Your task to perform on an android device: check the backup settings in the google photos Image 0: 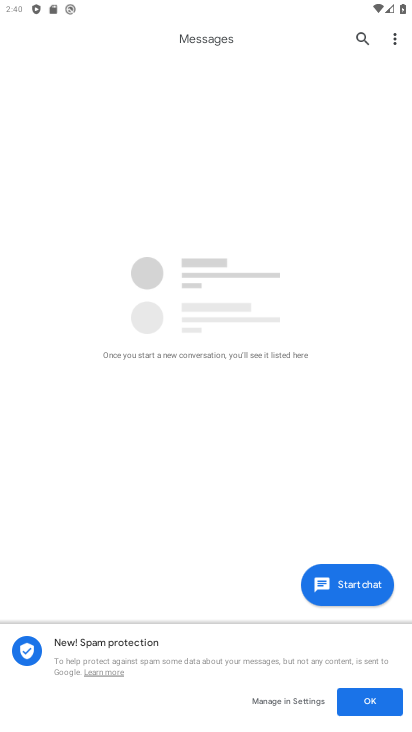
Step 0: press back button
Your task to perform on an android device: check the backup settings in the google photos Image 1: 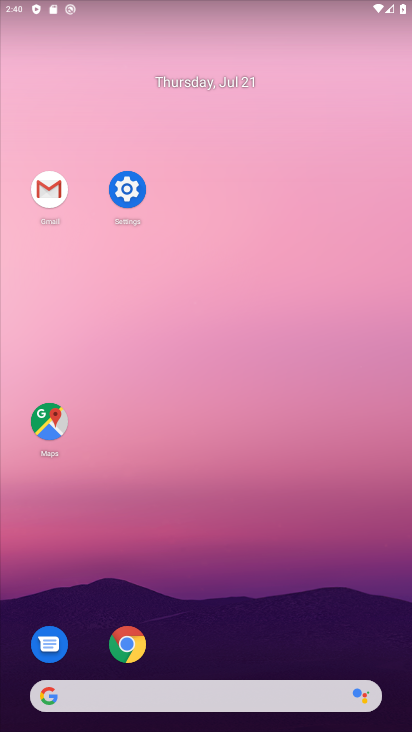
Step 1: drag from (259, 631) to (251, 149)
Your task to perform on an android device: check the backup settings in the google photos Image 2: 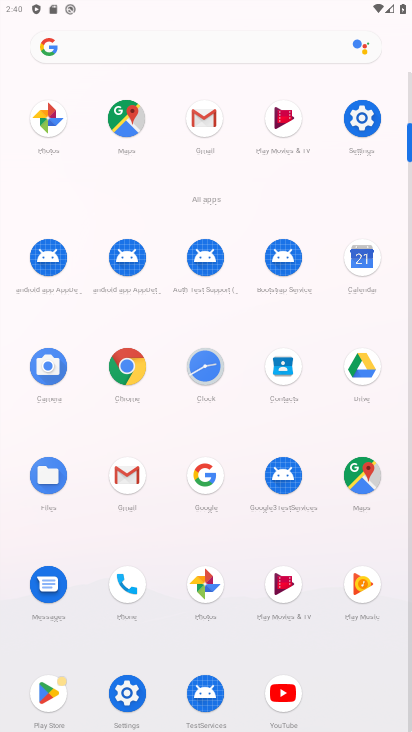
Step 2: drag from (43, 121) to (140, 142)
Your task to perform on an android device: check the backup settings in the google photos Image 3: 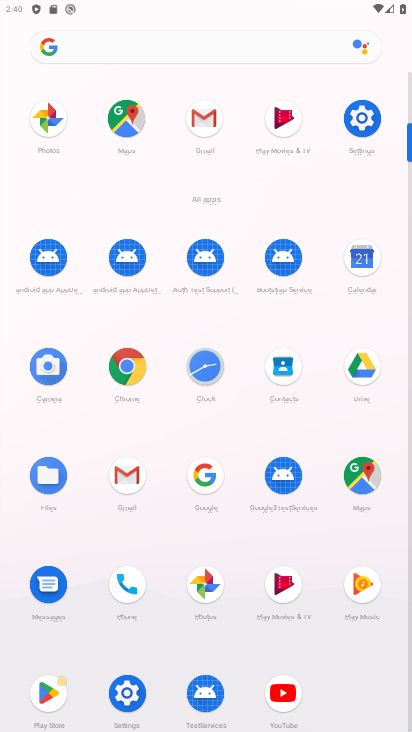
Step 3: drag from (45, 117) to (184, 209)
Your task to perform on an android device: check the backup settings in the google photos Image 4: 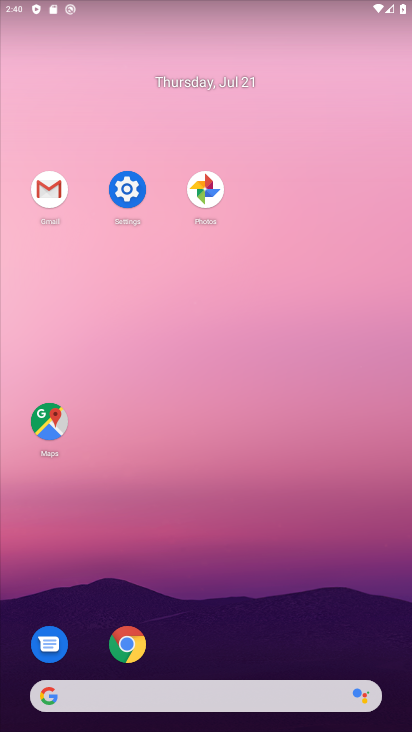
Step 4: click (202, 187)
Your task to perform on an android device: check the backup settings in the google photos Image 5: 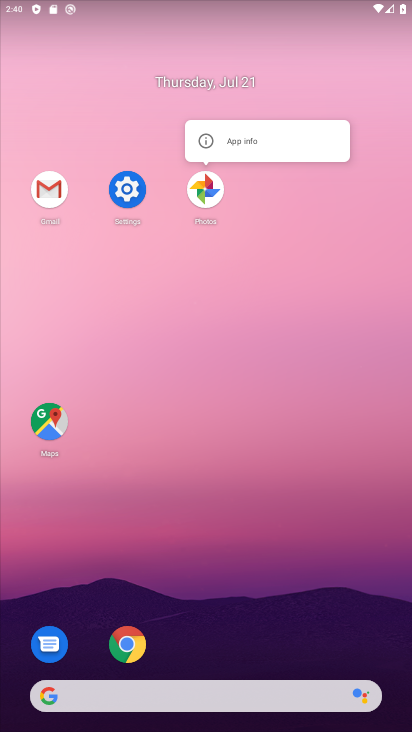
Step 5: click (203, 238)
Your task to perform on an android device: check the backup settings in the google photos Image 6: 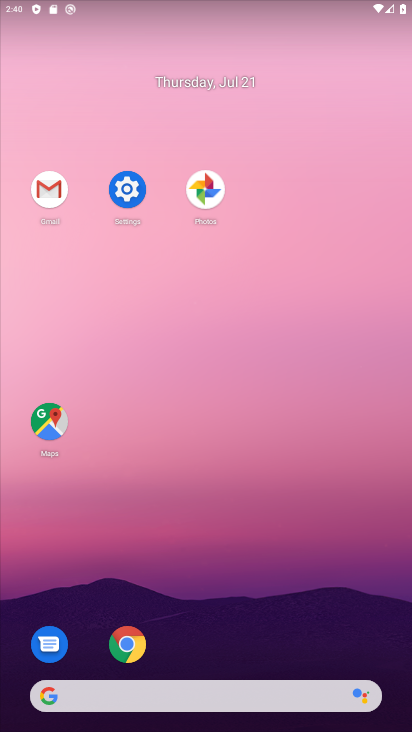
Step 6: click (188, 192)
Your task to perform on an android device: check the backup settings in the google photos Image 7: 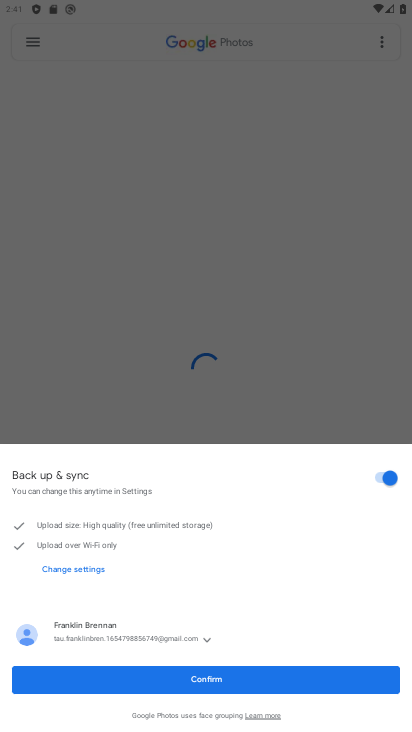
Step 7: click (227, 668)
Your task to perform on an android device: check the backup settings in the google photos Image 8: 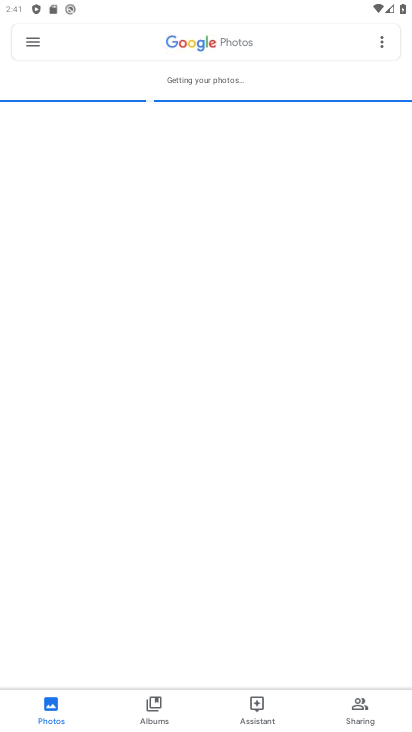
Step 8: click (33, 38)
Your task to perform on an android device: check the backup settings in the google photos Image 9: 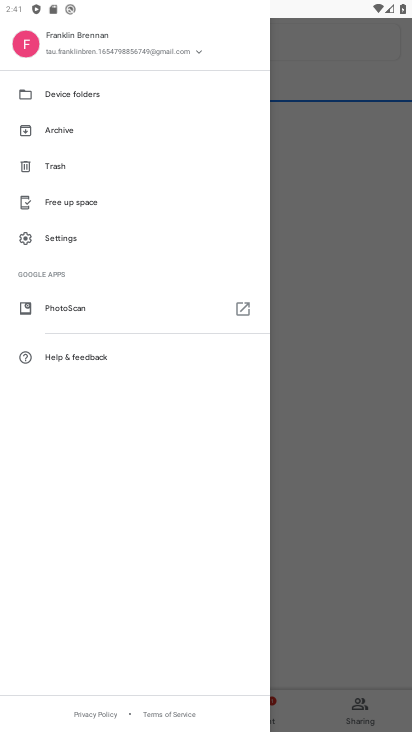
Step 9: click (94, 242)
Your task to perform on an android device: check the backup settings in the google photos Image 10: 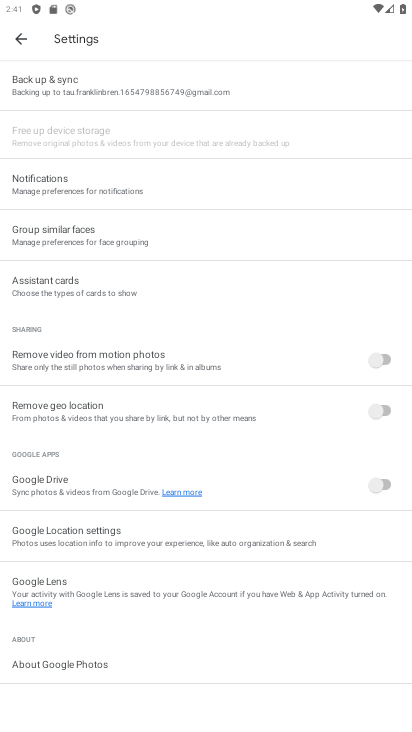
Step 10: click (170, 98)
Your task to perform on an android device: check the backup settings in the google photos Image 11: 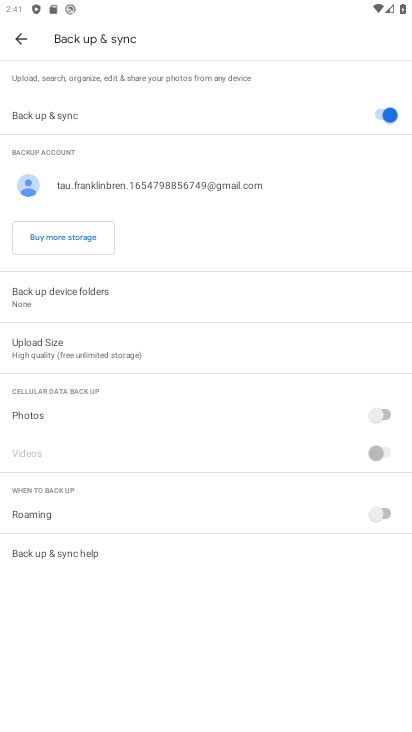
Step 11: task complete